Your task to perform on an android device: add a contact in the contacts app Image 0: 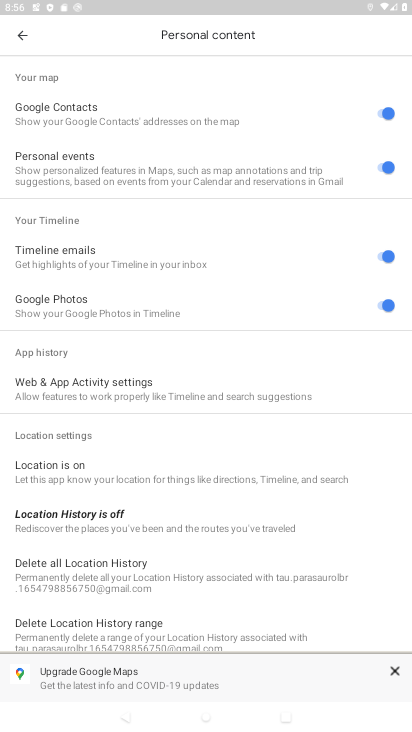
Step 0: press home button
Your task to perform on an android device: add a contact in the contacts app Image 1: 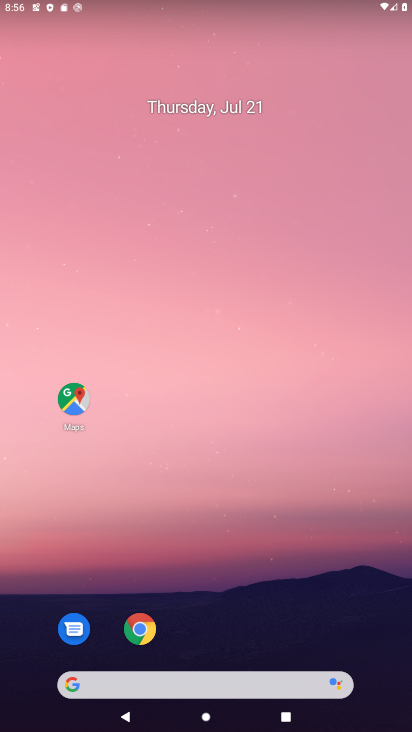
Step 1: drag from (239, 646) to (172, 193)
Your task to perform on an android device: add a contact in the contacts app Image 2: 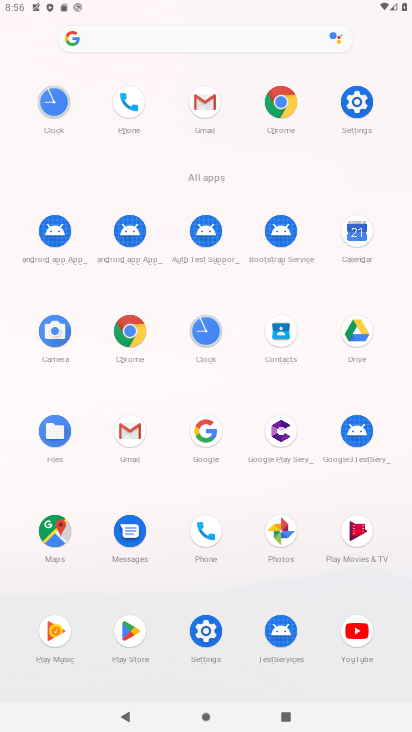
Step 2: click (282, 324)
Your task to perform on an android device: add a contact in the contacts app Image 3: 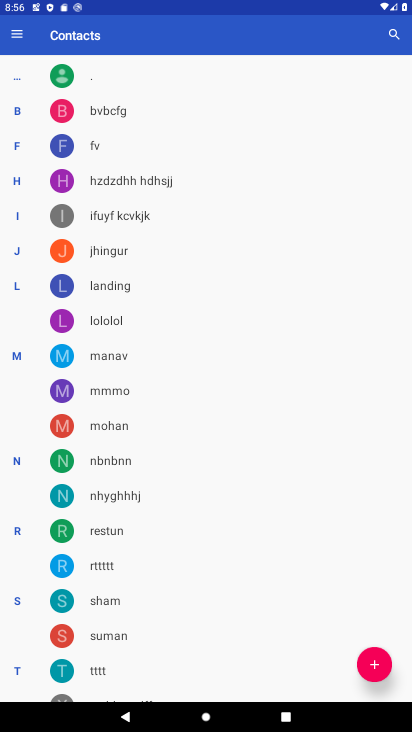
Step 3: click (374, 663)
Your task to perform on an android device: add a contact in the contacts app Image 4: 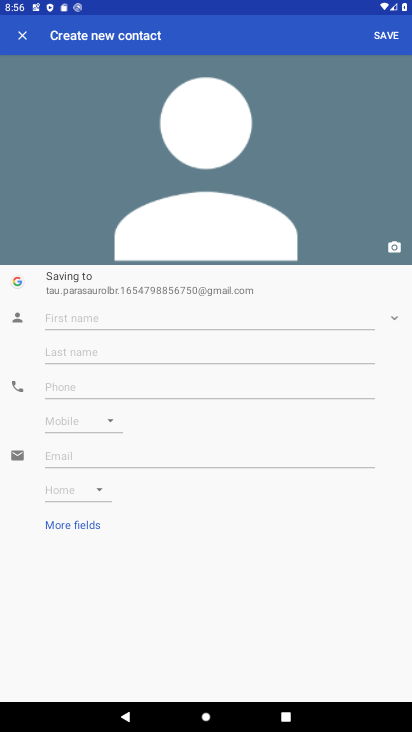
Step 4: type "iuhygfd"
Your task to perform on an android device: add a contact in the contacts app Image 5: 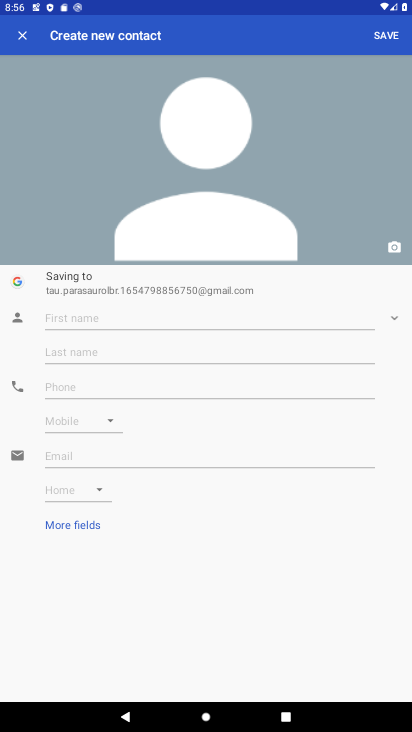
Step 5: click (187, 387)
Your task to perform on an android device: add a contact in the contacts app Image 6: 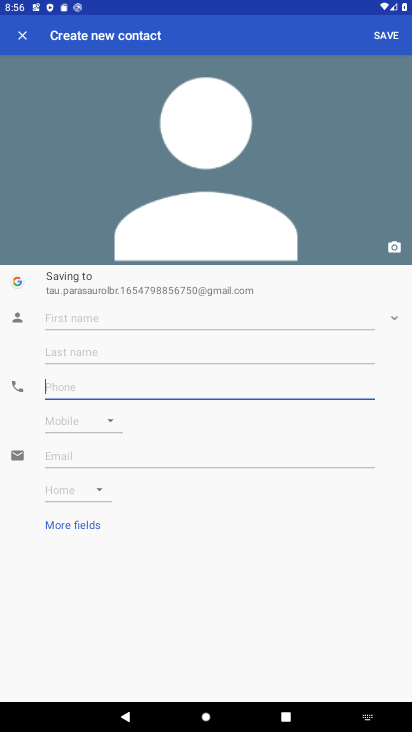
Step 6: type "09876543"
Your task to perform on an android device: add a contact in the contacts app Image 7: 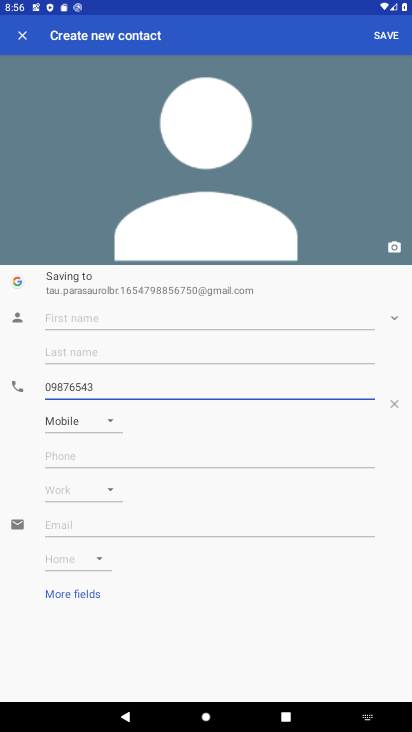
Step 7: click (143, 312)
Your task to perform on an android device: add a contact in the contacts app Image 8: 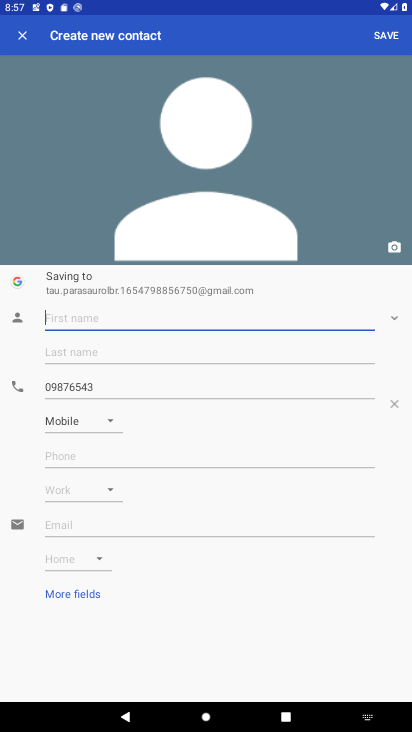
Step 8: type "kjhgfd"
Your task to perform on an android device: add a contact in the contacts app Image 9: 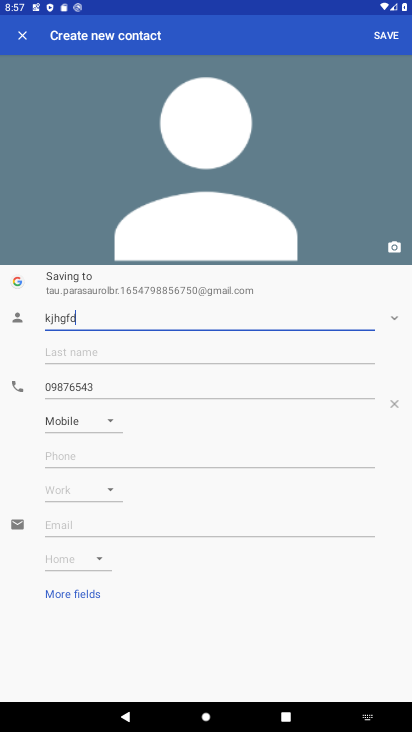
Step 9: click (377, 40)
Your task to perform on an android device: add a contact in the contacts app Image 10: 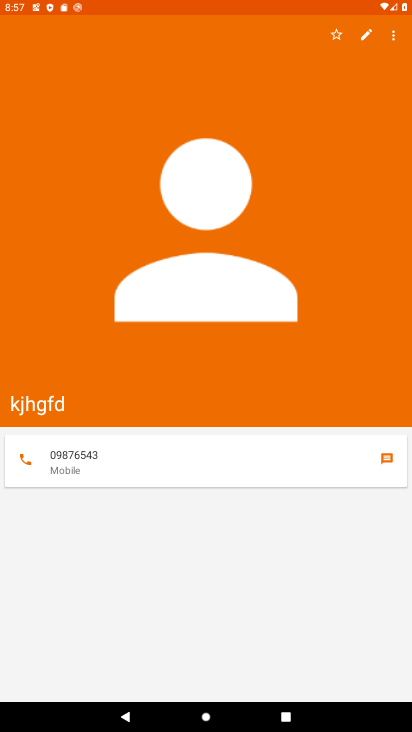
Step 10: task complete